Your task to perform on an android device: Open Yahoo.com Image 0: 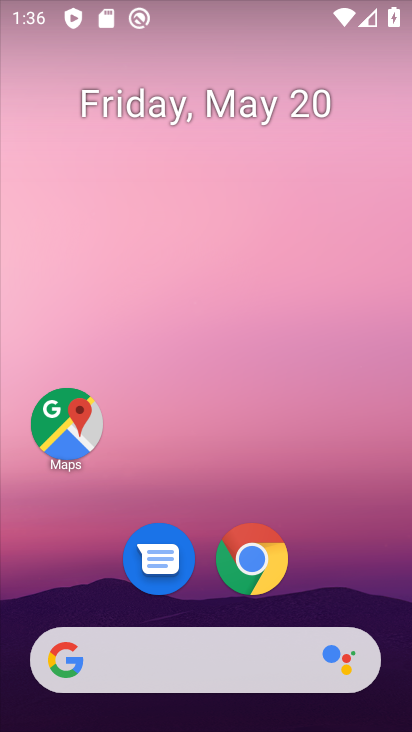
Step 0: click (258, 556)
Your task to perform on an android device: Open Yahoo.com Image 1: 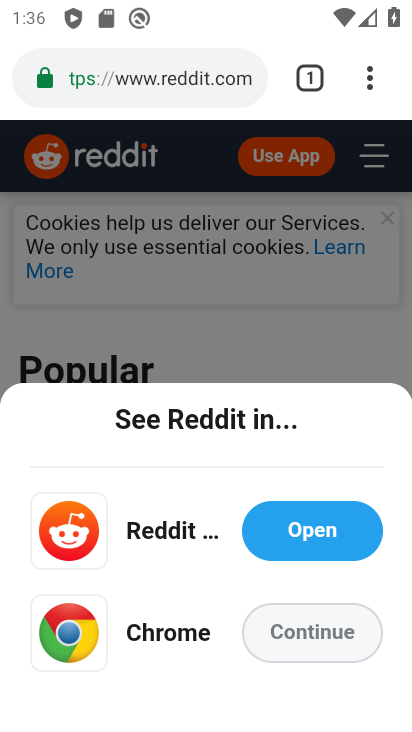
Step 1: click (184, 66)
Your task to perform on an android device: Open Yahoo.com Image 2: 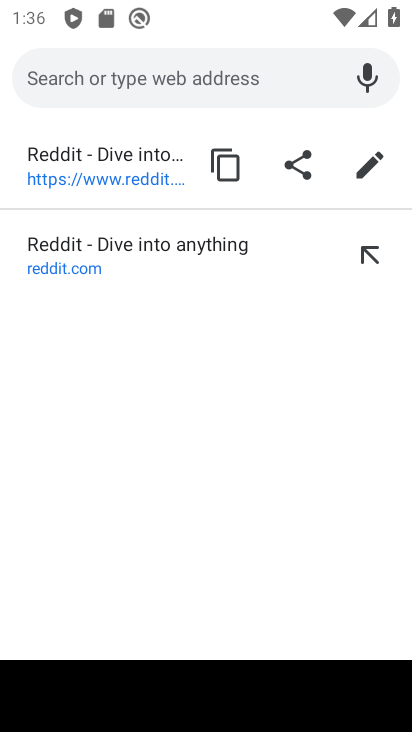
Step 2: type "yahoo.com"
Your task to perform on an android device: Open Yahoo.com Image 3: 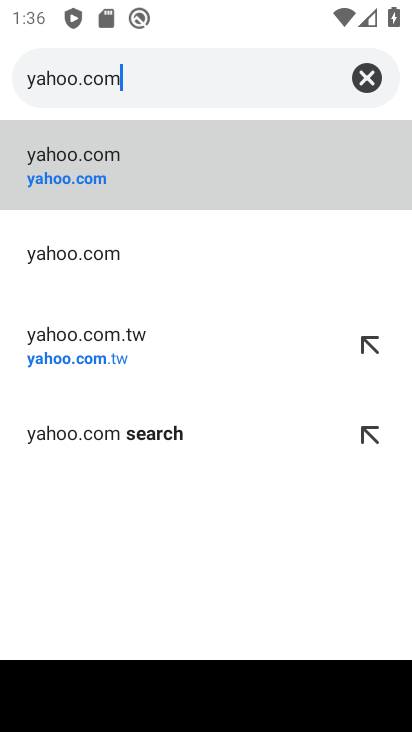
Step 3: click (121, 156)
Your task to perform on an android device: Open Yahoo.com Image 4: 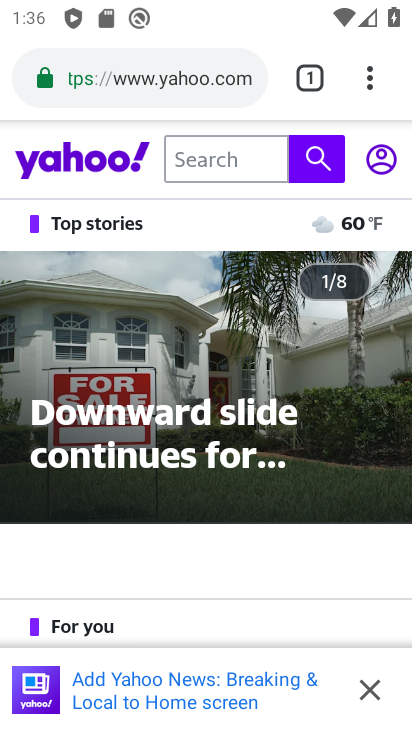
Step 4: task complete